Your task to perform on an android device: Open Maps and search for coffee Image 0: 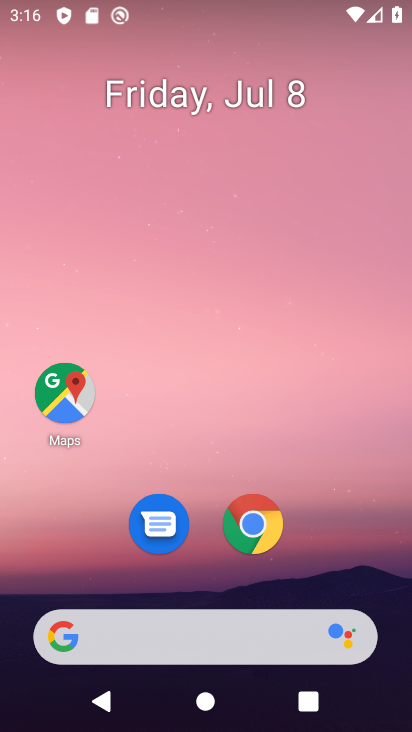
Step 0: drag from (216, 471) to (217, 61)
Your task to perform on an android device: Open Maps and search for coffee Image 1: 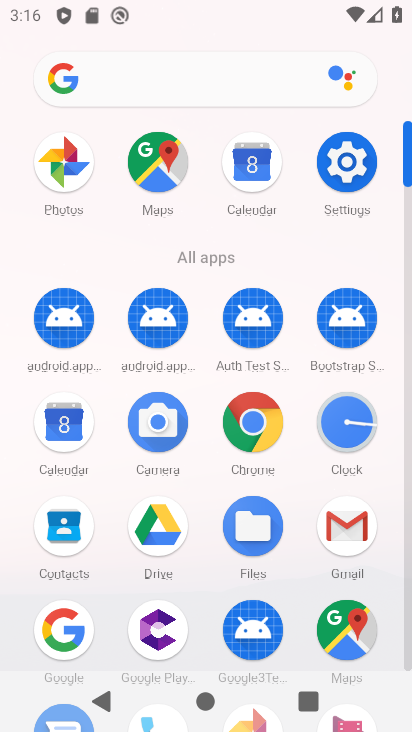
Step 1: click (159, 161)
Your task to perform on an android device: Open Maps and search for coffee Image 2: 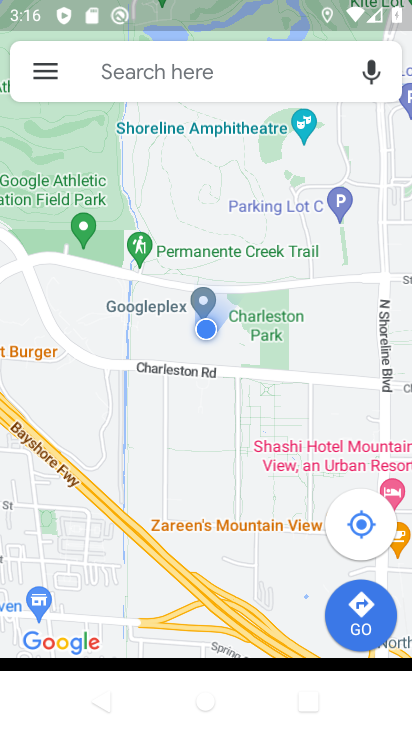
Step 2: click (144, 70)
Your task to perform on an android device: Open Maps and search for coffee Image 3: 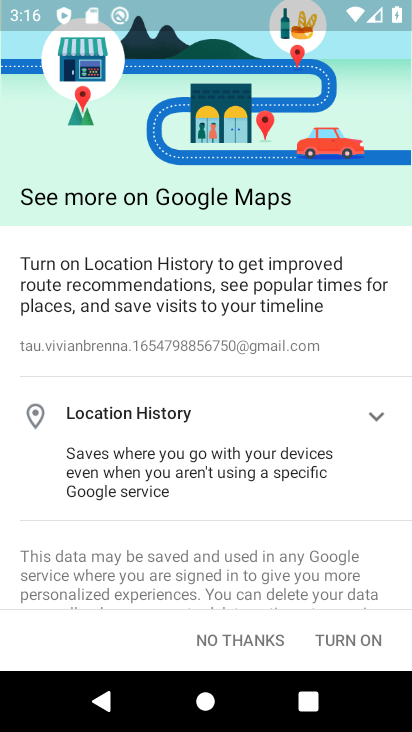
Step 3: click (257, 634)
Your task to perform on an android device: Open Maps and search for coffee Image 4: 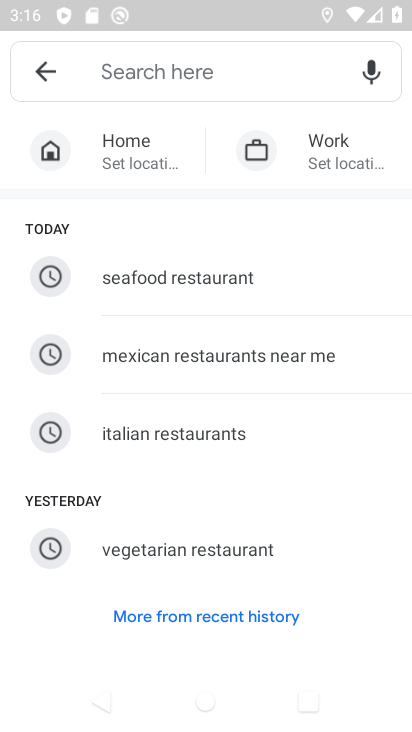
Step 4: click (268, 70)
Your task to perform on an android device: Open Maps and search for coffee Image 5: 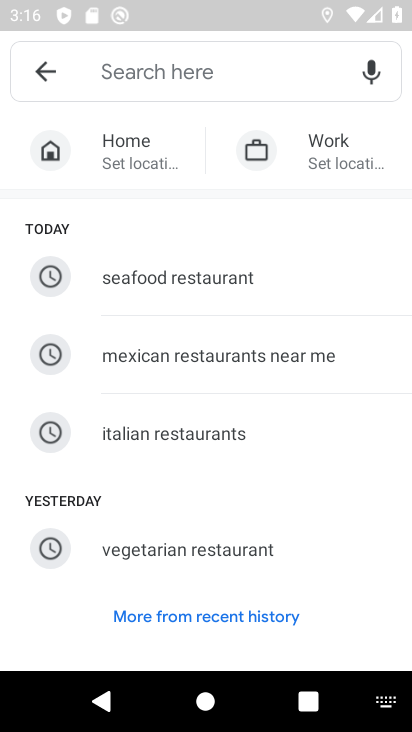
Step 5: type "coffee"
Your task to perform on an android device: Open Maps and search for coffee Image 6: 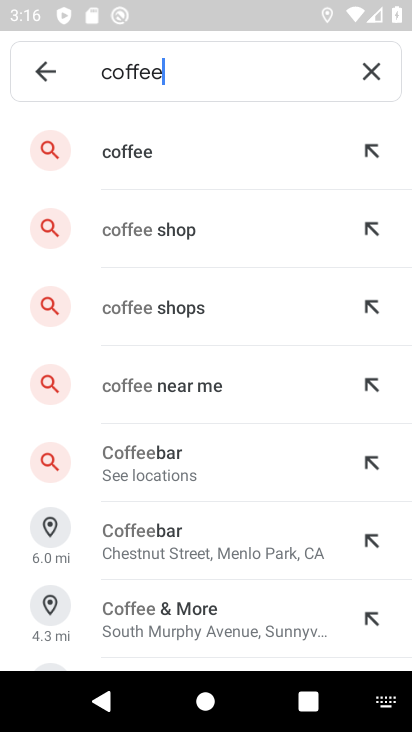
Step 6: click (183, 232)
Your task to perform on an android device: Open Maps and search for coffee Image 7: 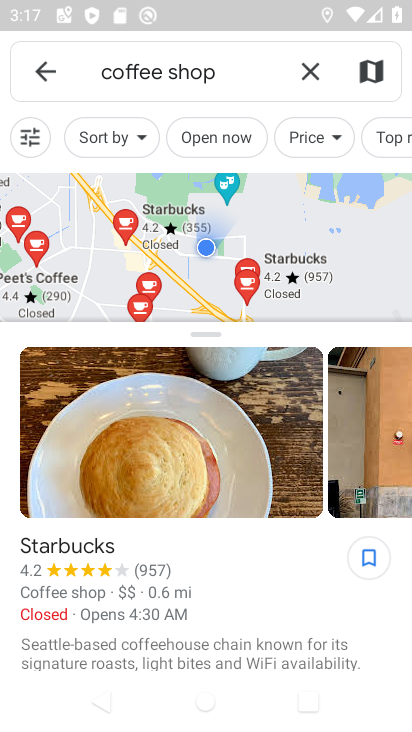
Step 7: task complete